Your task to perform on an android device: See recent photos Image 0: 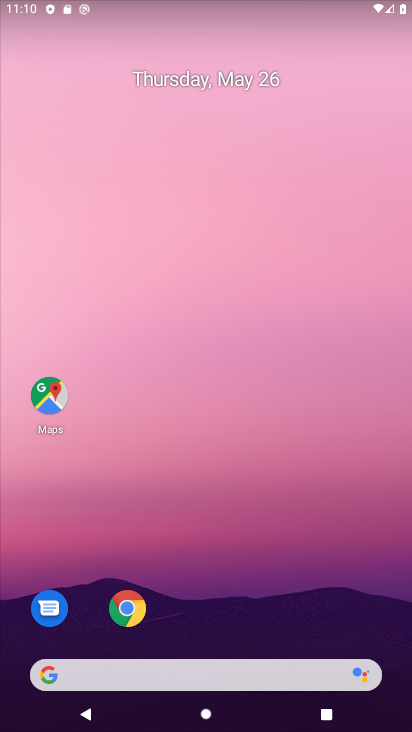
Step 0: drag from (268, 576) to (251, 80)
Your task to perform on an android device: See recent photos Image 1: 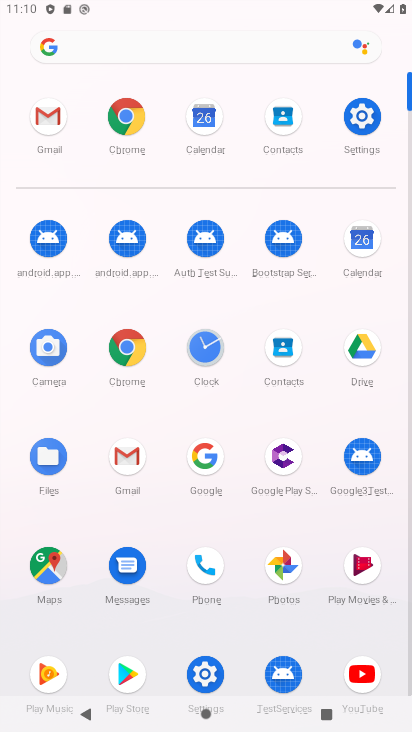
Step 1: click (281, 563)
Your task to perform on an android device: See recent photos Image 2: 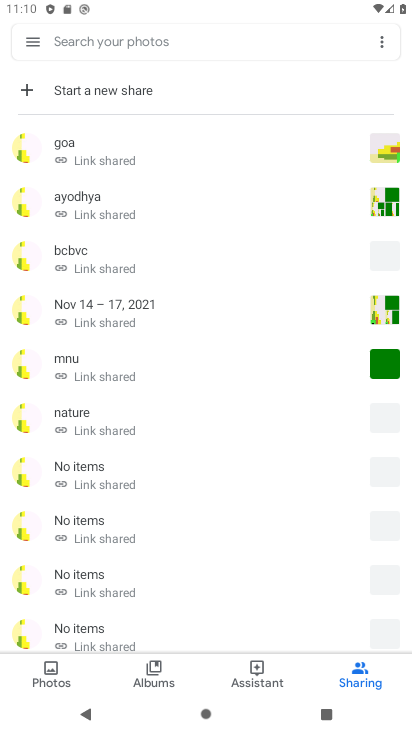
Step 2: click (53, 664)
Your task to perform on an android device: See recent photos Image 3: 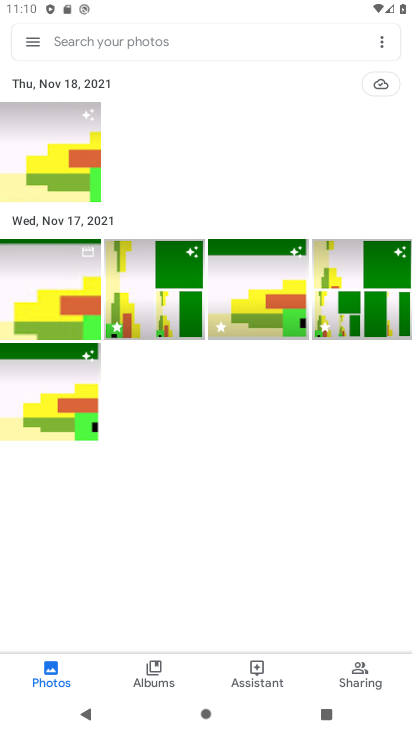
Step 3: task complete